Your task to perform on an android device: Open battery settings Image 0: 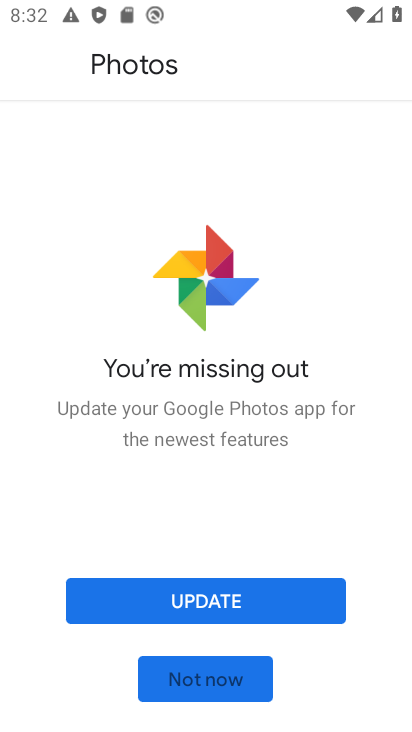
Step 0: click (201, 674)
Your task to perform on an android device: Open battery settings Image 1: 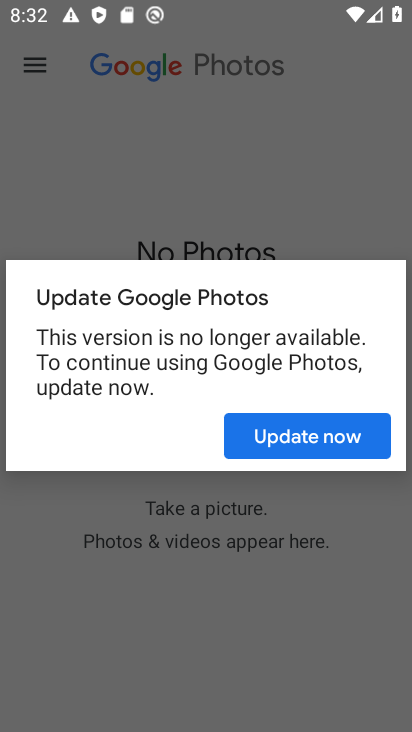
Step 1: press back button
Your task to perform on an android device: Open battery settings Image 2: 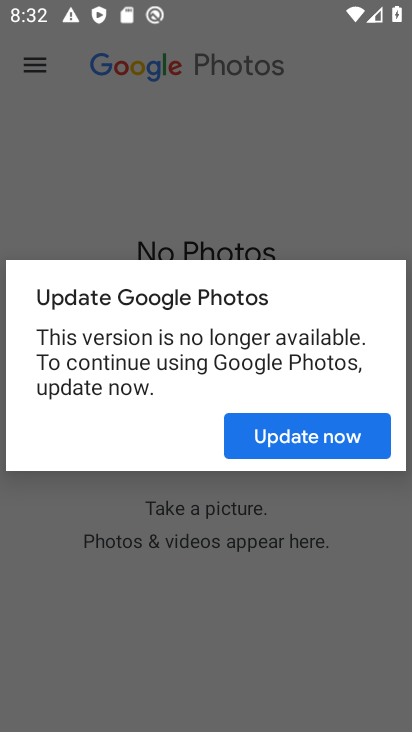
Step 2: click (317, 440)
Your task to perform on an android device: Open battery settings Image 3: 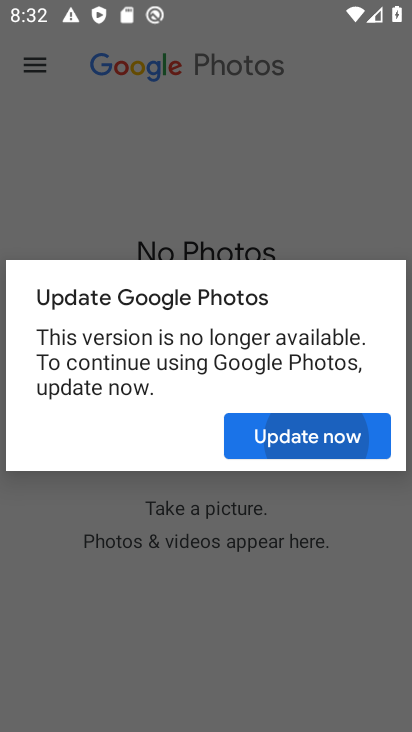
Step 3: click (317, 440)
Your task to perform on an android device: Open battery settings Image 4: 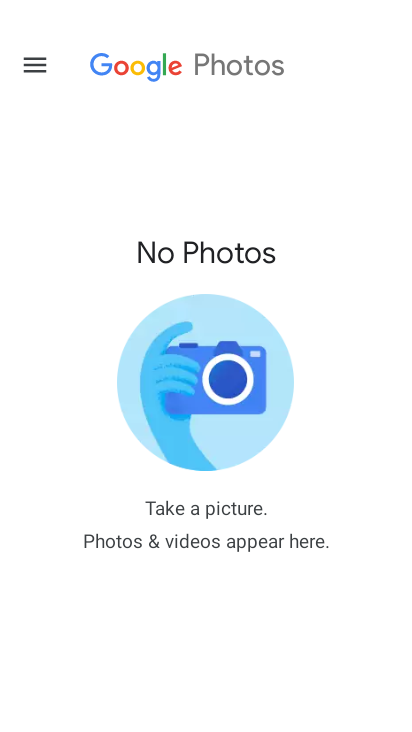
Step 4: click (317, 440)
Your task to perform on an android device: Open battery settings Image 5: 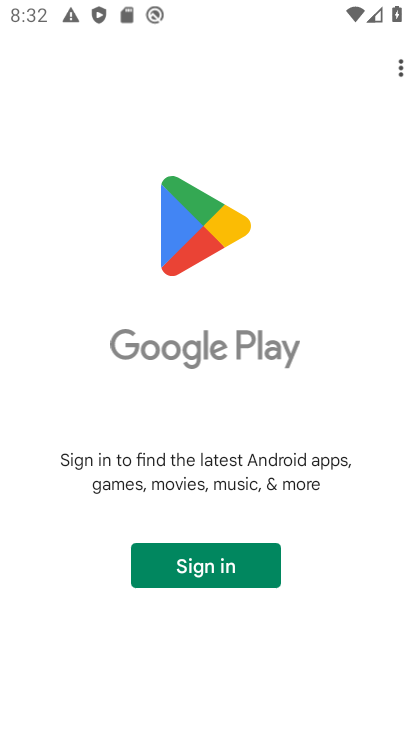
Step 5: press home button
Your task to perform on an android device: Open battery settings Image 6: 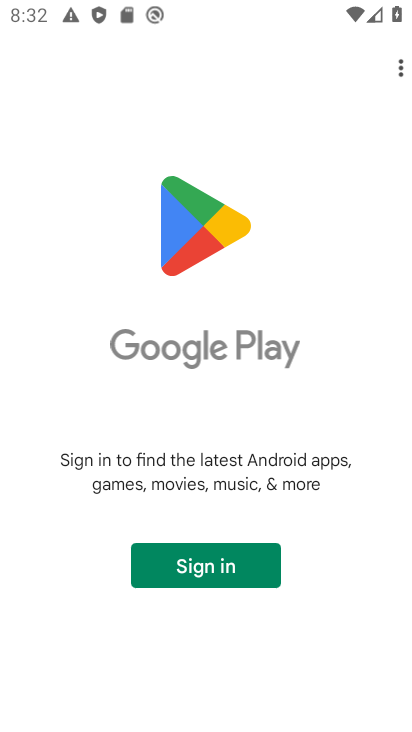
Step 6: press home button
Your task to perform on an android device: Open battery settings Image 7: 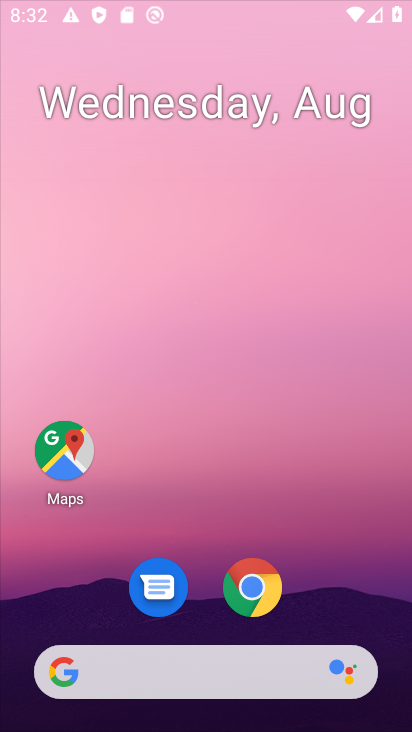
Step 7: press home button
Your task to perform on an android device: Open battery settings Image 8: 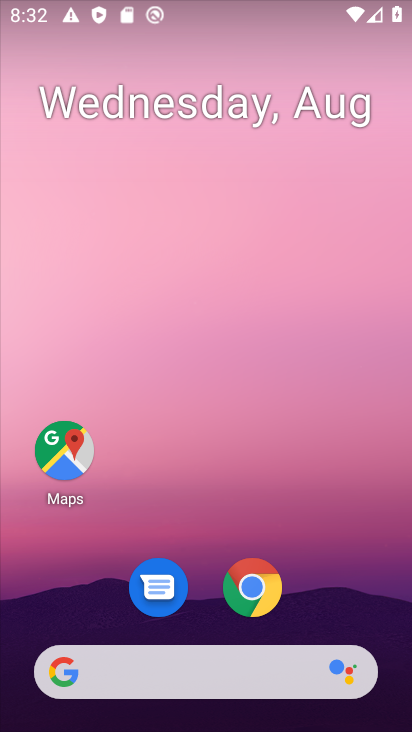
Step 8: press back button
Your task to perform on an android device: Open battery settings Image 9: 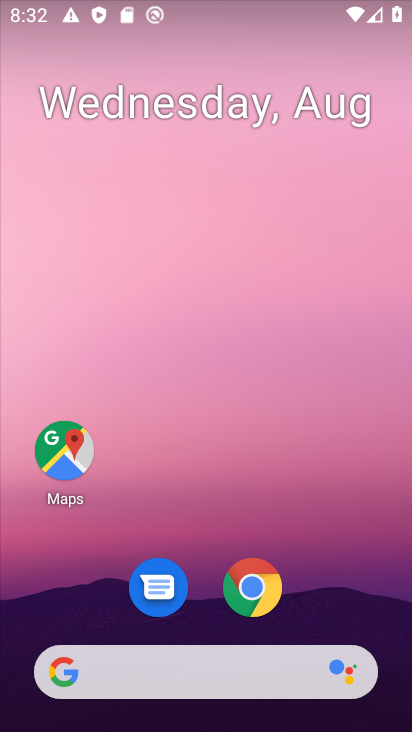
Step 9: press back button
Your task to perform on an android device: Open battery settings Image 10: 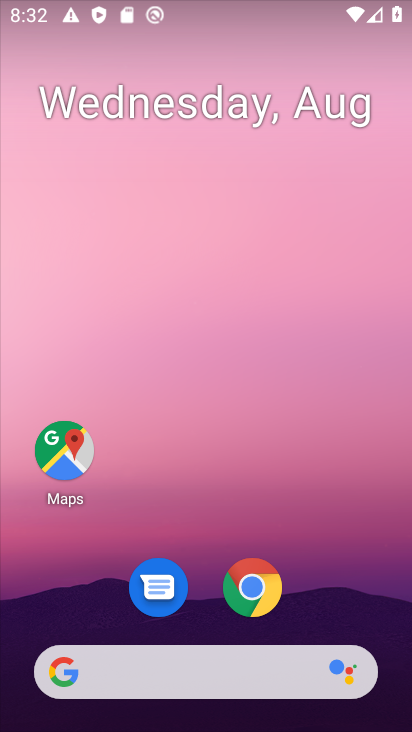
Step 10: drag from (232, 686) to (188, 45)
Your task to perform on an android device: Open battery settings Image 11: 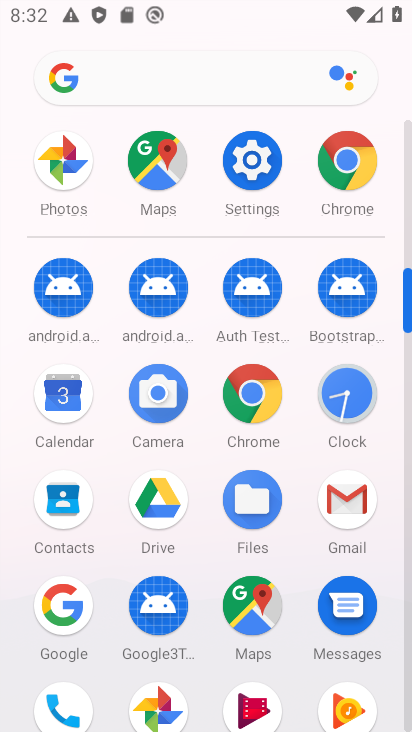
Step 11: click (250, 166)
Your task to perform on an android device: Open battery settings Image 12: 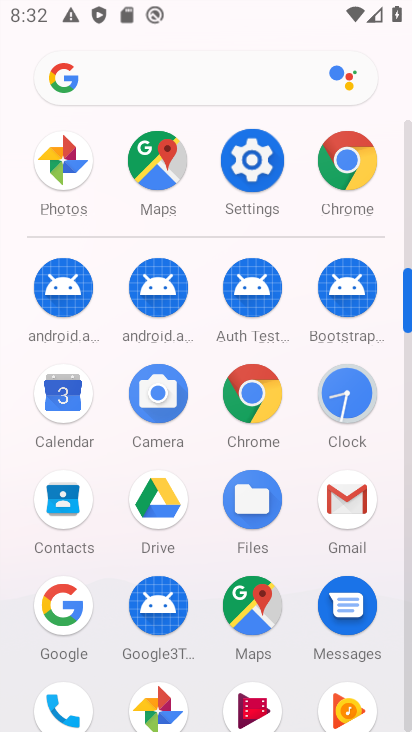
Step 12: click (251, 167)
Your task to perform on an android device: Open battery settings Image 13: 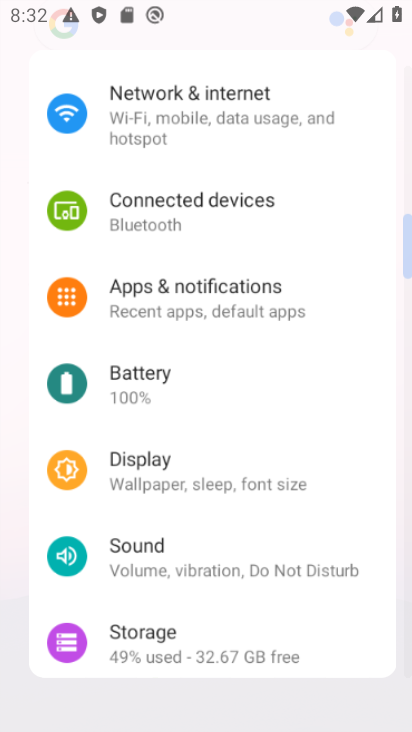
Step 13: click (251, 167)
Your task to perform on an android device: Open battery settings Image 14: 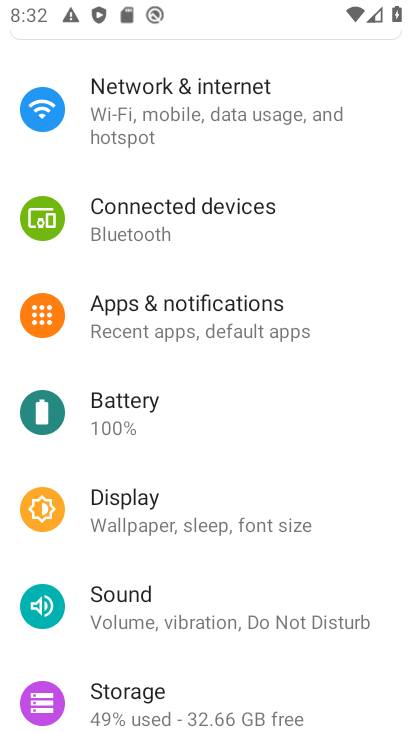
Step 14: click (114, 394)
Your task to perform on an android device: Open battery settings Image 15: 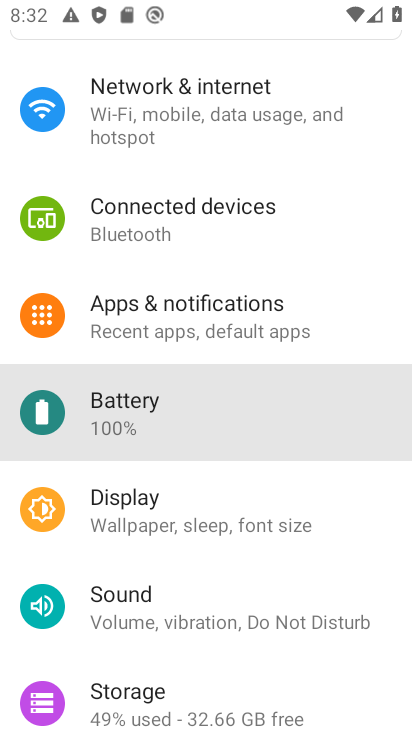
Step 15: click (122, 423)
Your task to perform on an android device: Open battery settings Image 16: 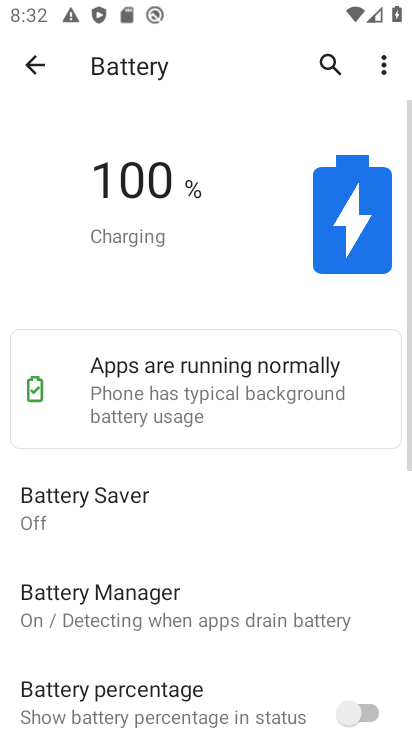
Step 16: task complete